Your task to perform on an android device: Is it going to rain tomorrow? Image 0: 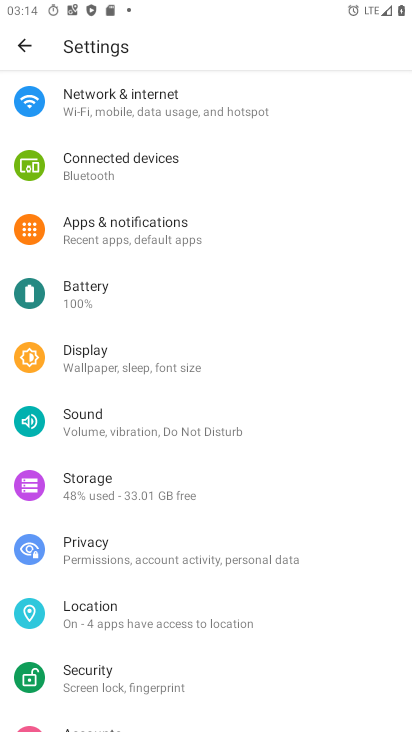
Step 0: press home button
Your task to perform on an android device: Is it going to rain tomorrow? Image 1: 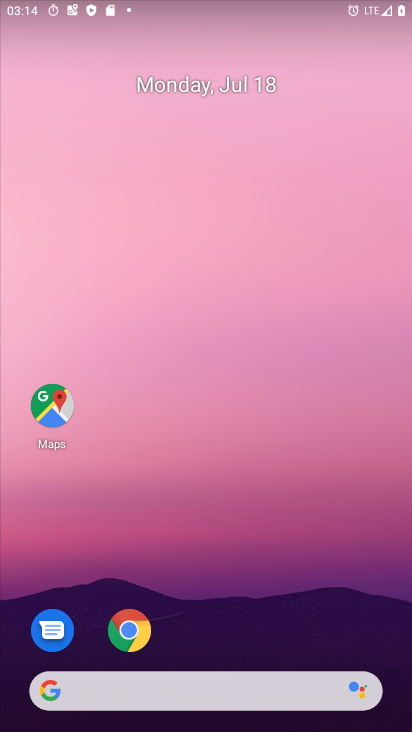
Step 1: click (155, 699)
Your task to perform on an android device: Is it going to rain tomorrow? Image 2: 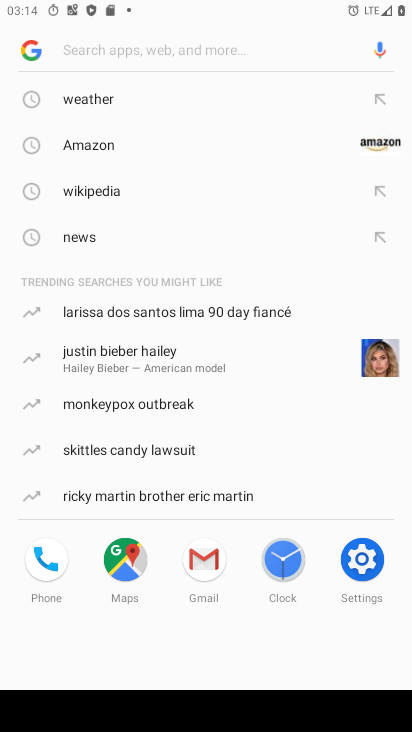
Step 2: click (134, 93)
Your task to perform on an android device: Is it going to rain tomorrow? Image 3: 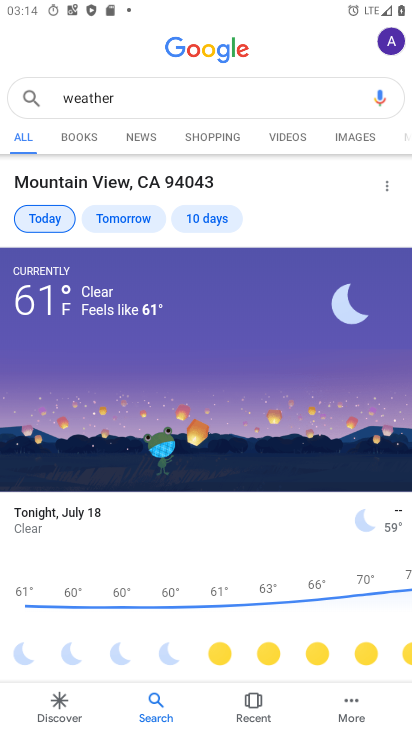
Step 3: click (124, 207)
Your task to perform on an android device: Is it going to rain tomorrow? Image 4: 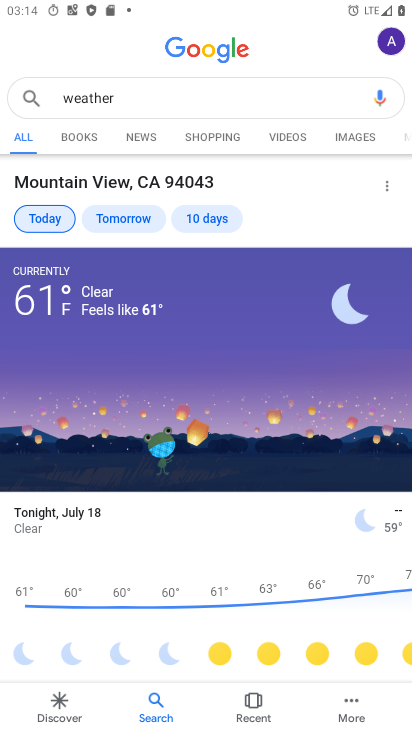
Step 4: click (130, 218)
Your task to perform on an android device: Is it going to rain tomorrow? Image 5: 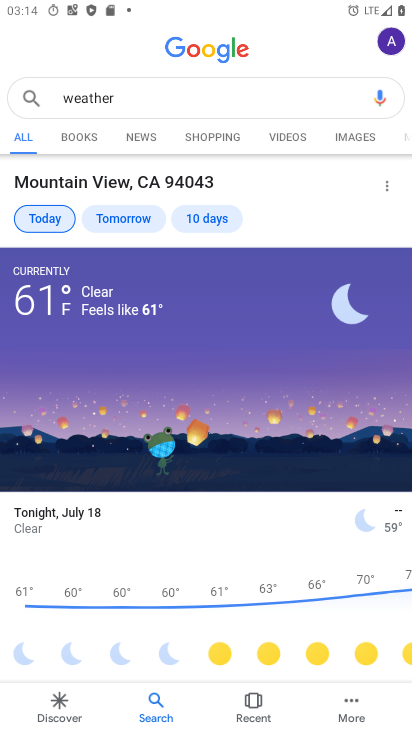
Step 5: click (130, 218)
Your task to perform on an android device: Is it going to rain tomorrow? Image 6: 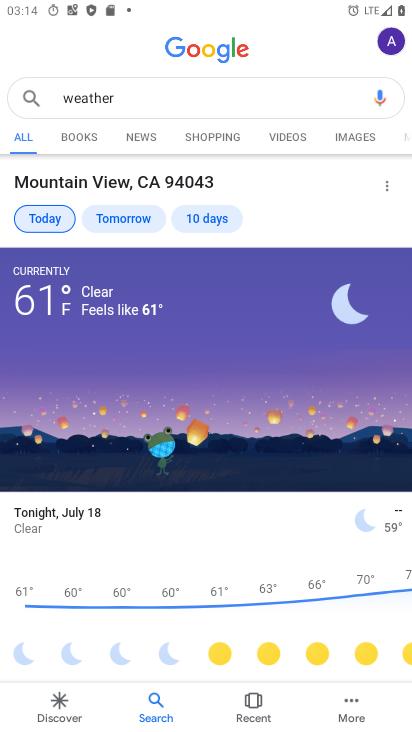
Step 6: click (110, 217)
Your task to perform on an android device: Is it going to rain tomorrow? Image 7: 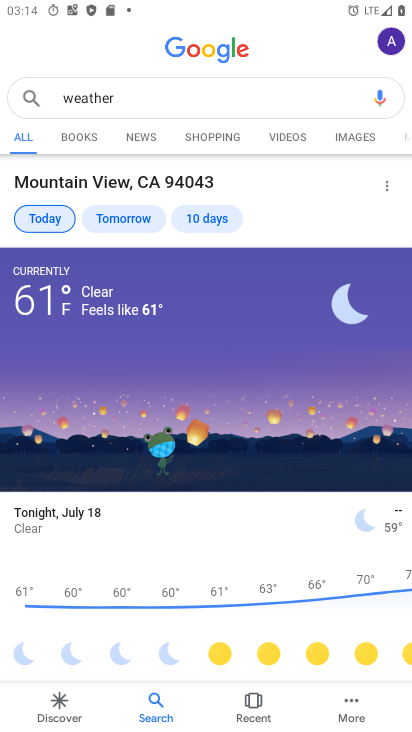
Step 7: click (110, 217)
Your task to perform on an android device: Is it going to rain tomorrow? Image 8: 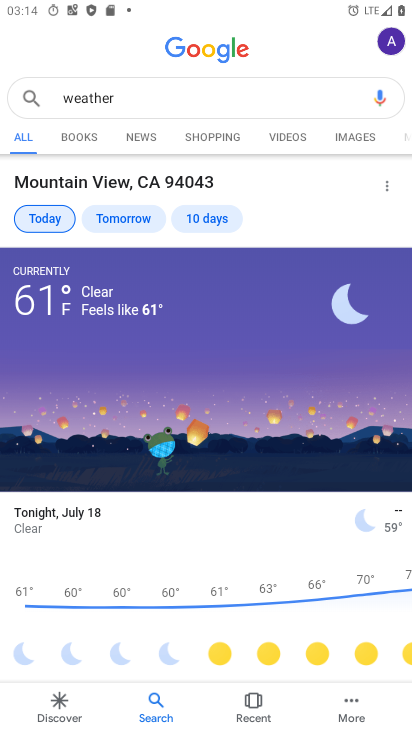
Step 8: click (110, 217)
Your task to perform on an android device: Is it going to rain tomorrow? Image 9: 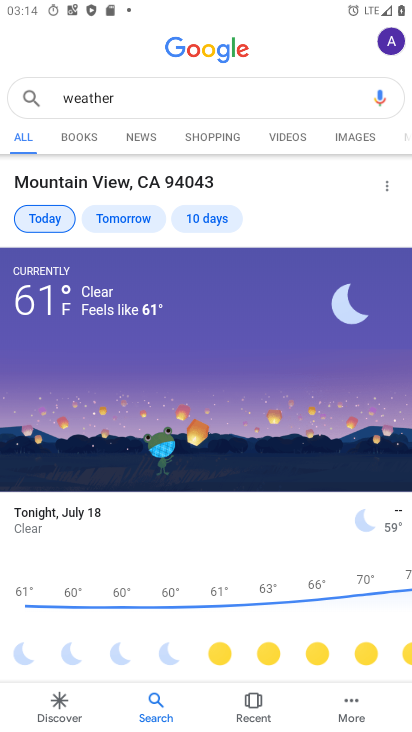
Step 9: click (110, 217)
Your task to perform on an android device: Is it going to rain tomorrow? Image 10: 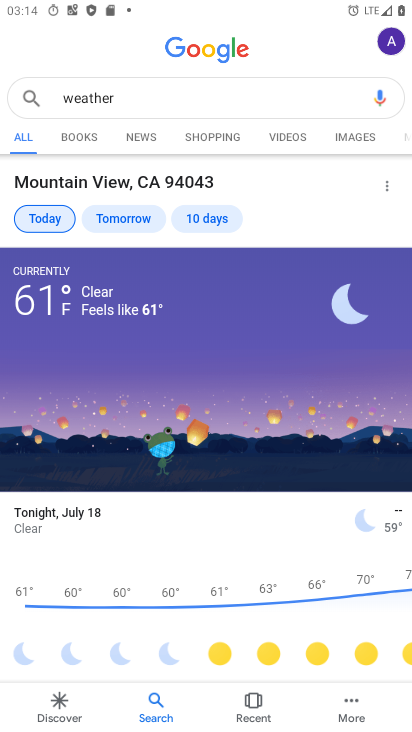
Step 10: click (124, 220)
Your task to perform on an android device: Is it going to rain tomorrow? Image 11: 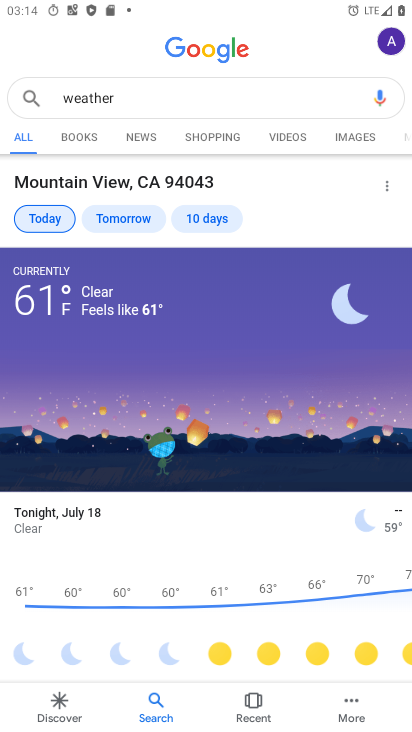
Step 11: click (124, 220)
Your task to perform on an android device: Is it going to rain tomorrow? Image 12: 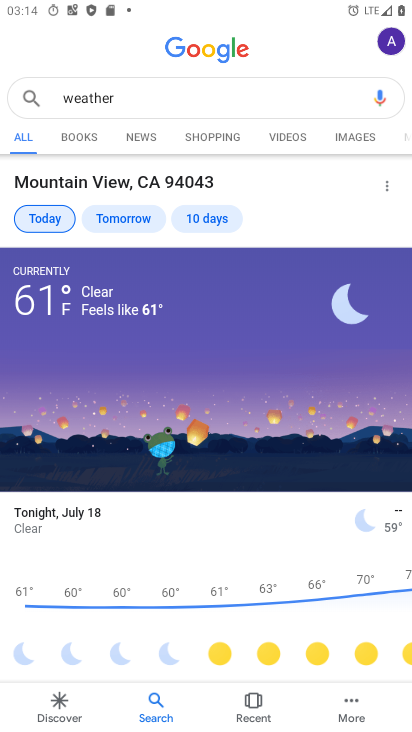
Step 12: click (124, 220)
Your task to perform on an android device: Is it going to rain tomorrow? Image 13: 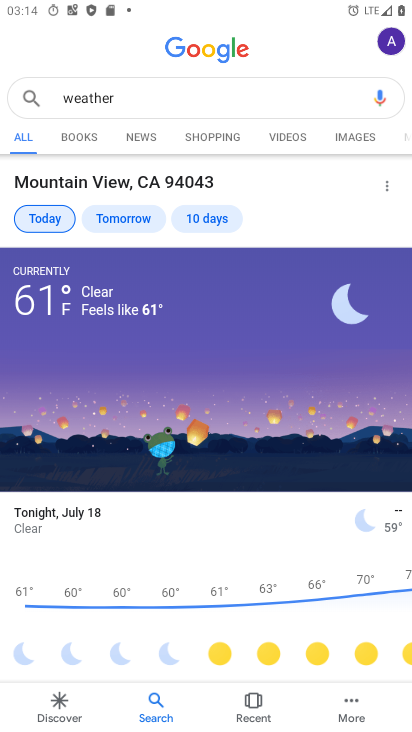
Step 13: click (124, 220)
Your task to perform on an android device: Is it going to rain tomorrow? Image 14: 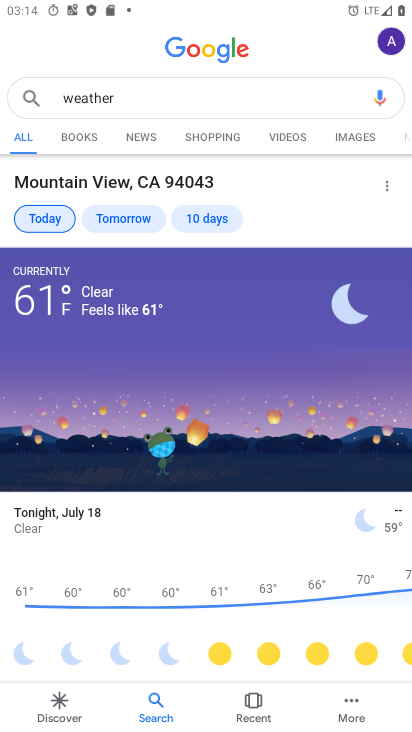
Step 14: click (124, 220)
Your task to perform on an android device: Is it going to rain tomorrow? Image 15: 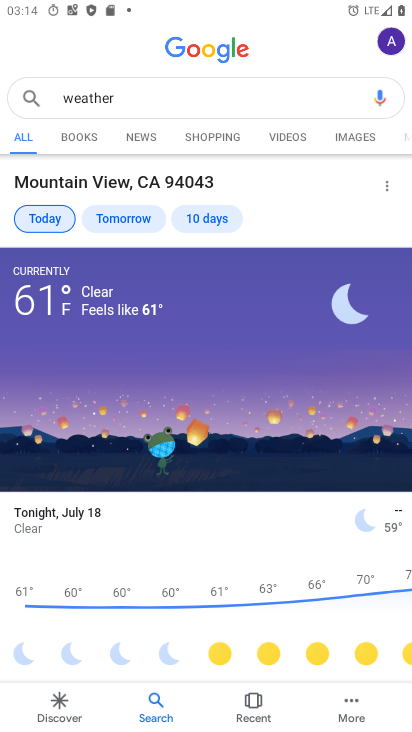
Step 15: click (124, 220)
Your task to perform on an android device: Is it going to rain tomorrow? Image 16: 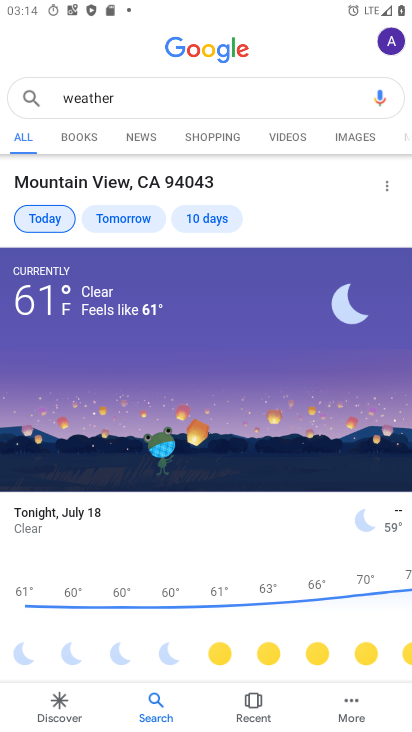
Step 16: click (124, 220)
Your task to perform on an android device: Is it going to rain tomorrow? Image 17: 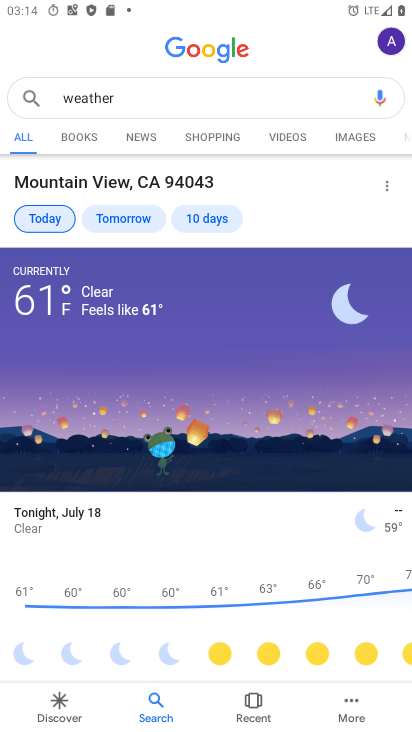
Step 17: click (124, 220)
Your task to perform on an android device: Is it going to rain tomorrow? Image 18: 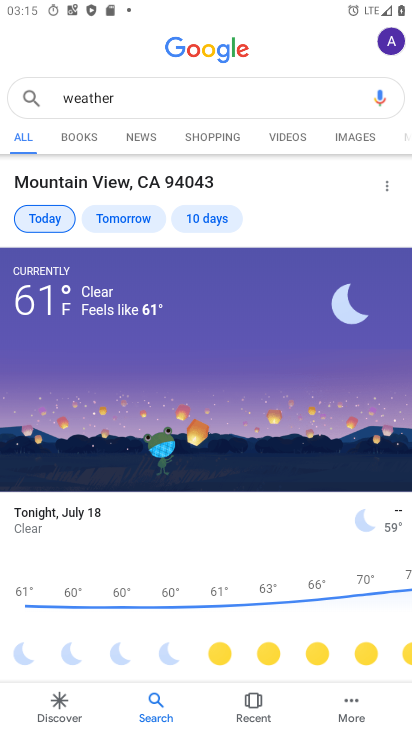
Step 18: click (124, 220)
Your task to perform on an android device: Is it going to rain tomorrow? Image 19: 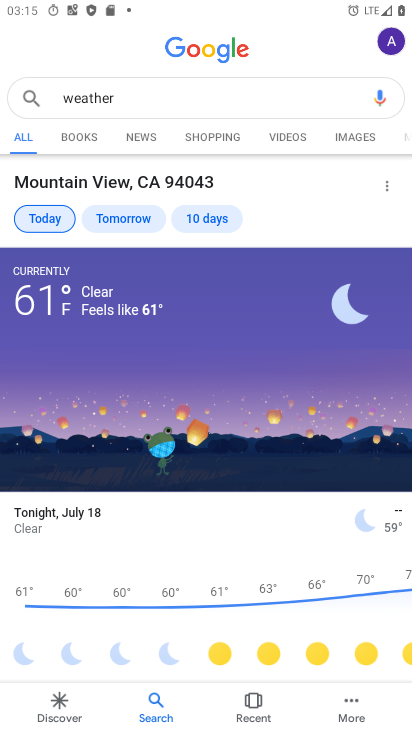
Step 19: click (124, 220)
Your task to perform on an android device: Is it going to rain tomorrow? Image 20: 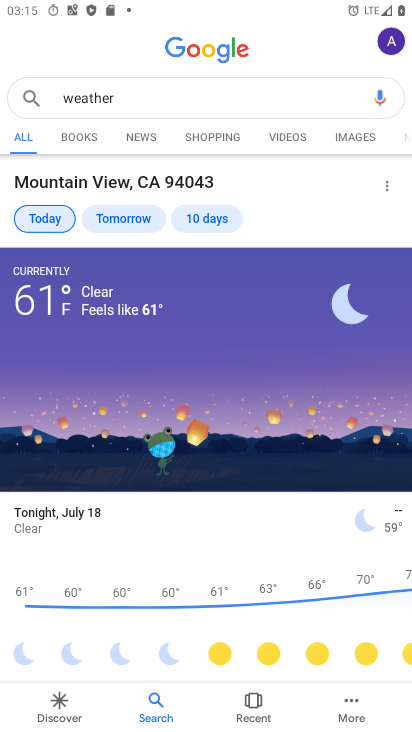
Step 20: click (124, 220)
Your task to perform on an android device: Is it going to rain tomorrow? Image 21: 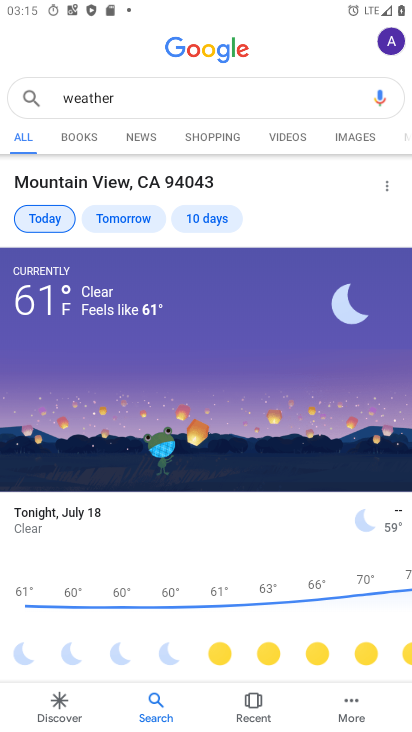
Step 21: click (124, 220)
Your task to perform on an android device: Is it going to rain tomorrow? Image 22: 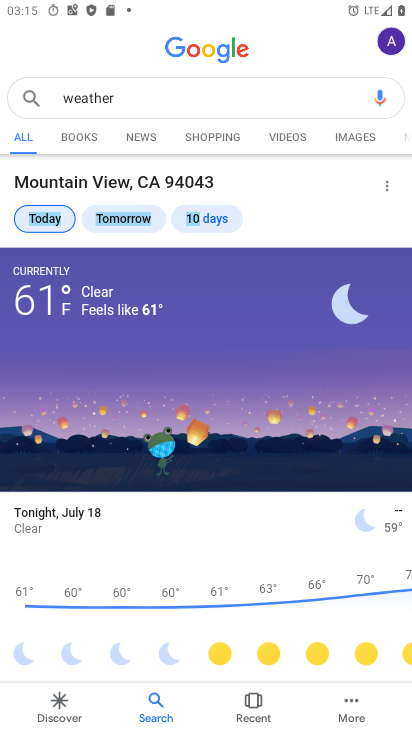
Step 22: click (124, 220)
Your task to perform on an android device: Is it going to rain tomorrow? Image 23: 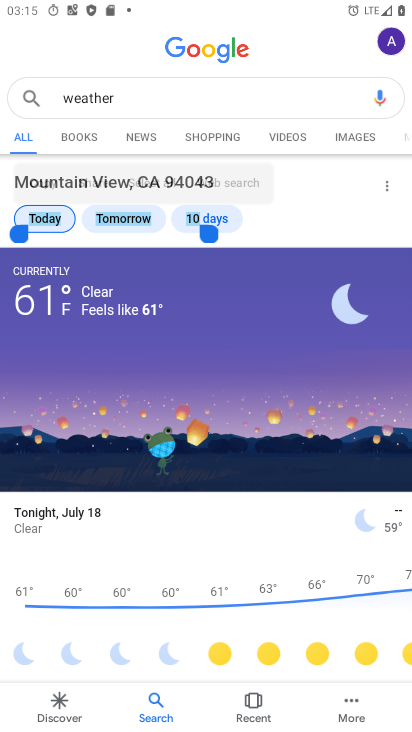
Step 23: click (124, 220)
Your task to perform on an android device: Is it going to rain tomorrow? Image 24: 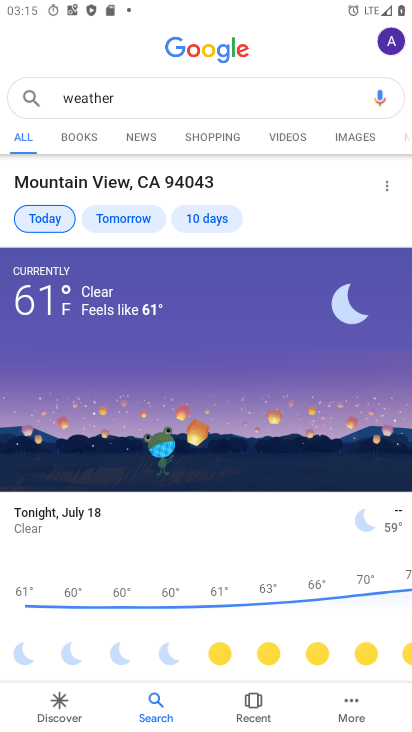
Step 24: click (124, 220)
Your task to perform on an android device: Is it going to rain tomorrow? Image 25: 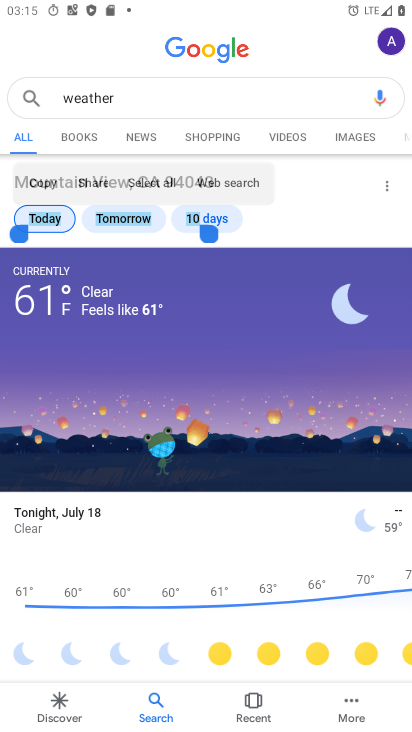
Step 25: click (124, 220)
Your task to perform on an android device: Is it going to rain tomorrow? Image 26: 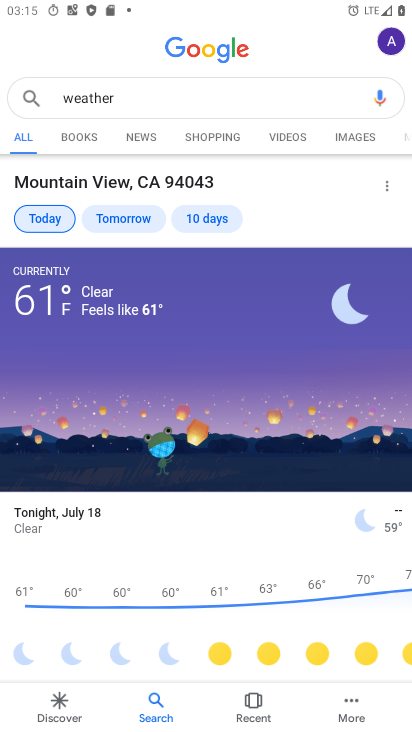
Step 26: click (124, 220)
Your task to perform on an android device: Is it going to rain tomorrow? Image 27: 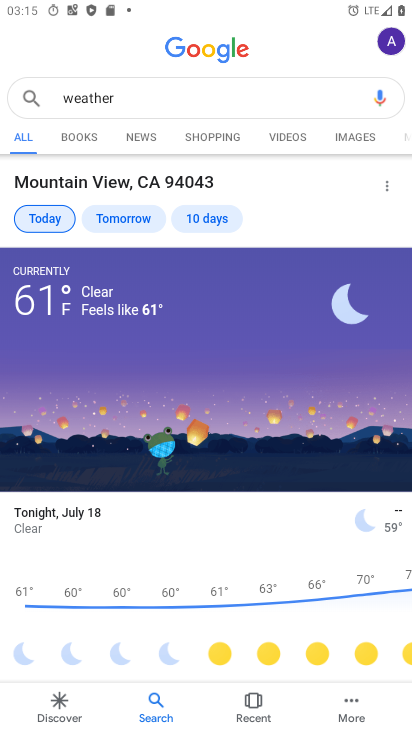
Step 27: click (101, 234)
Your task to perform on an android device: Is it going to rain tomorrow? Image 28: 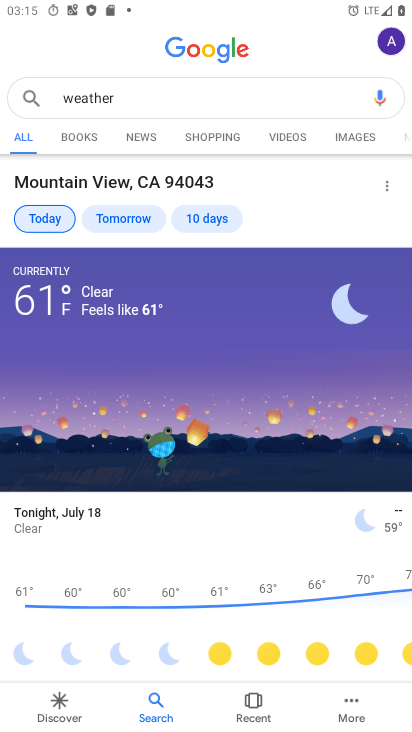
Step 28: click (101, 234)
Your task to perform on an android device: Is it going to rain tomorrow? Image 29: 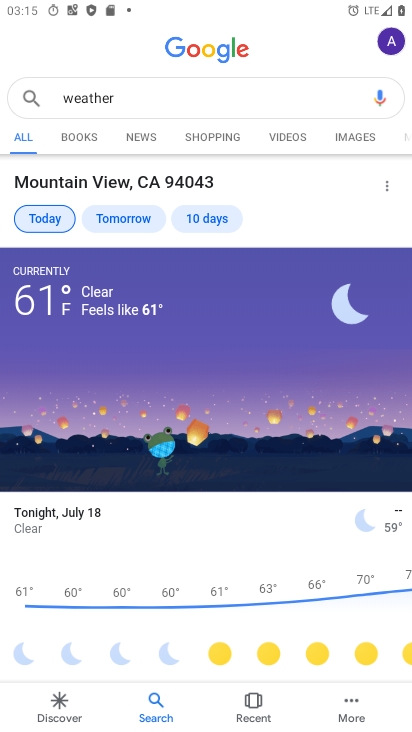
Step 29: click (101, 234)
Your task to perform on an android device: Is it going to rain tomorrow? Image 30: 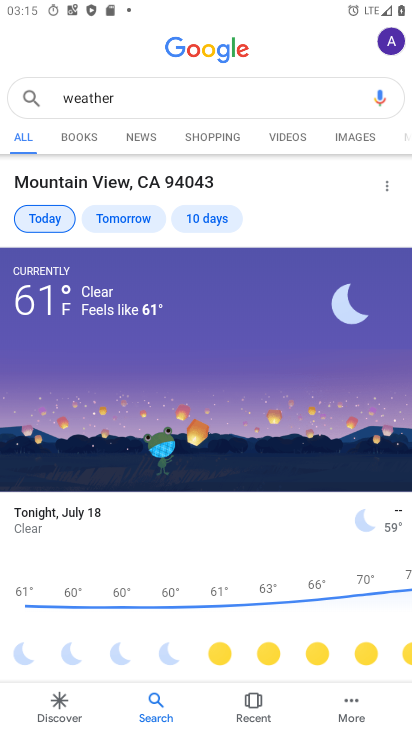
Step 30: click (101, 234)
Your task to perform on an android device: Is it going to rain tomorrow? Image 31: 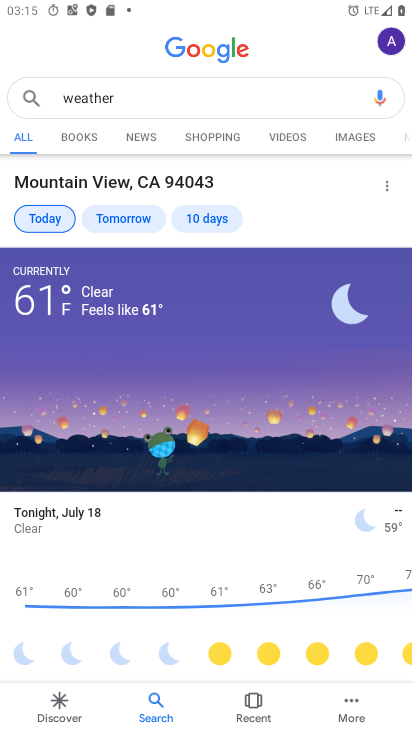
Step 31: click (101, 234)
Your task to perform on an android device: Is it going to rain tomorrow? Image 32: 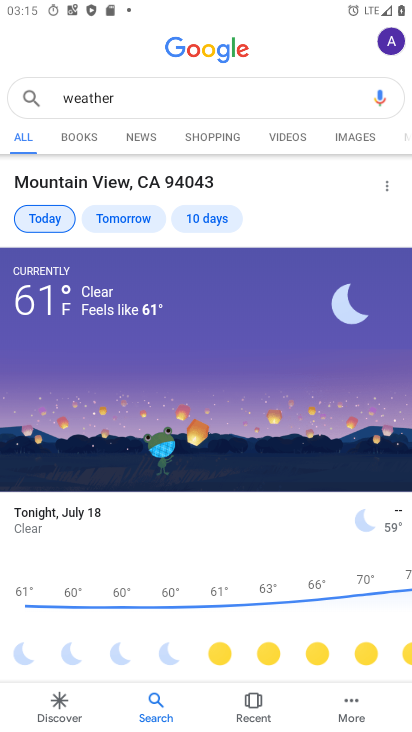
Step 32: click (101, 234)
Your task to perform on an android device: Is it going to rain tomorrow? Image 33: 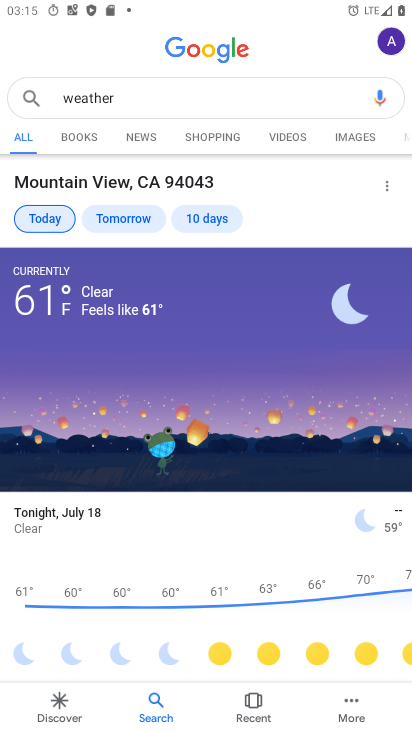
Step 33: click (101, 234)
Your task to perform on an android device: Is it going to rain tomorrow? Image 34: 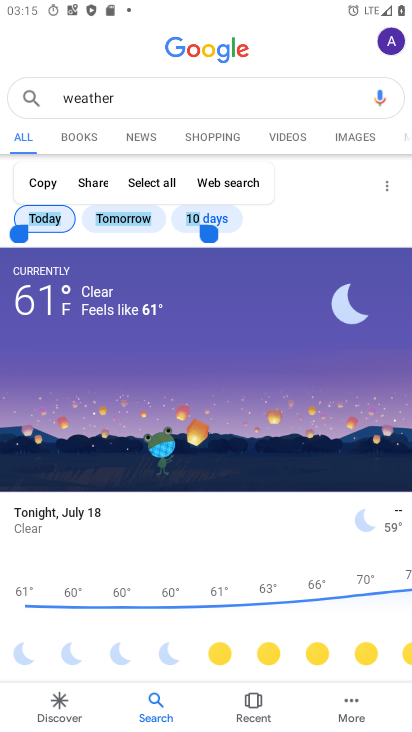
Step 34: click (118, 227)
Your task to perform on an android device: Is it going to rain tomorrow? Image 35: 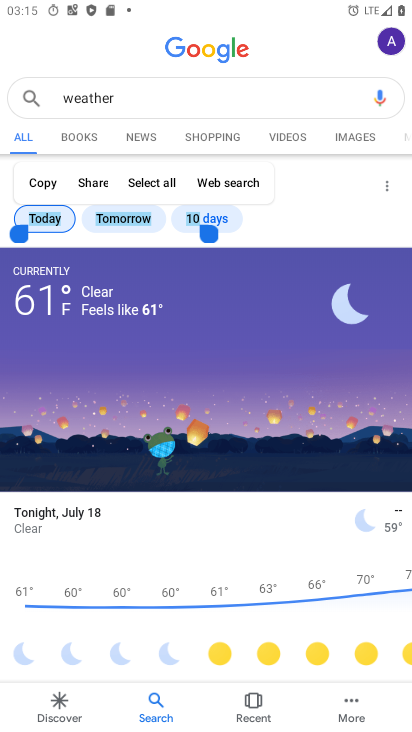
Step 35: click (118, 227)
Your task to perform on an android device: Is it going to rain tomorrow? Image 36: 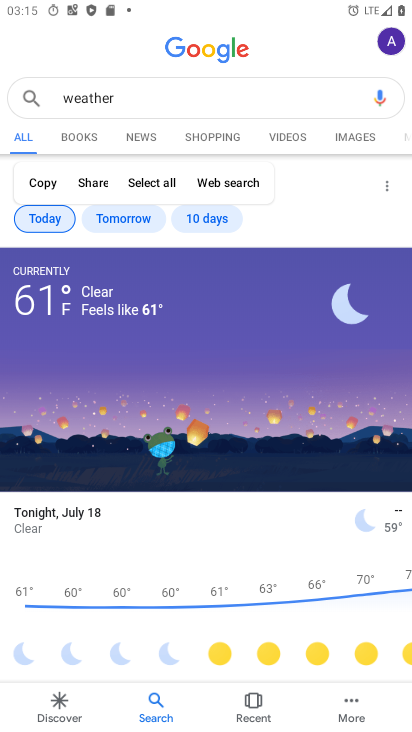
Step 36: click (118, 227)
Your task to perform on an android device: Is it going to rain tomorrow? Image 37: 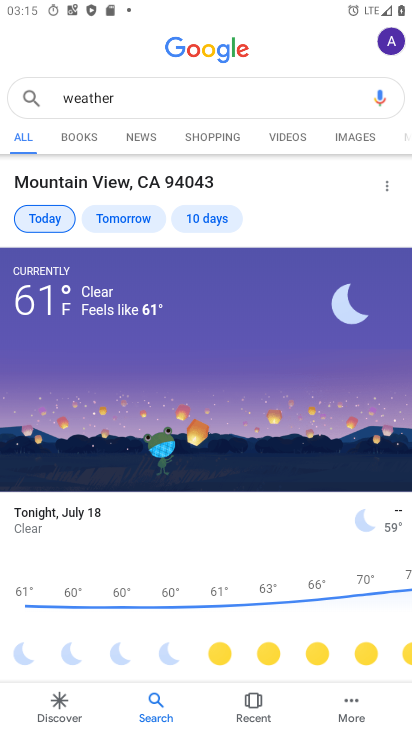
Step 37: click (120, 221)
Your task to perform on an android device: Is it going to rain tomorrow? Image 38: 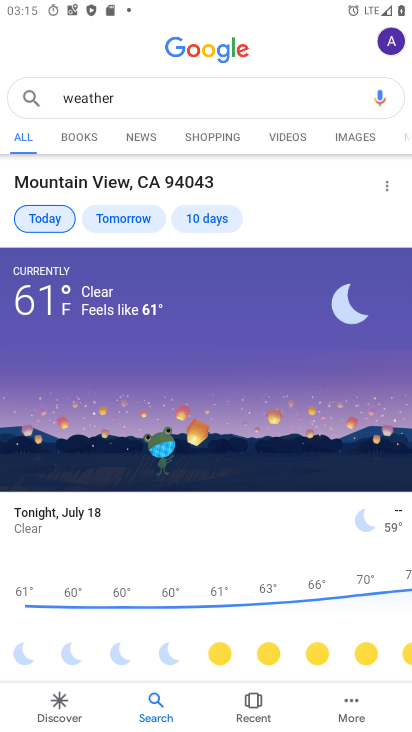
Step 38: click (120, 221)
Your task to perform on an android device: Is it going to rain tomorrow? Image 39: 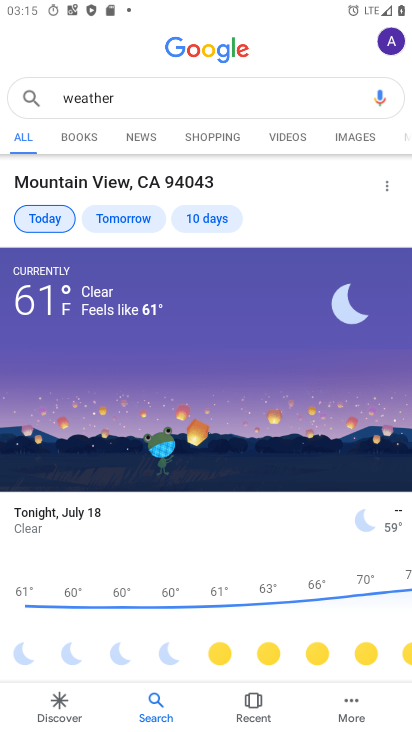
Step 39: click (120, 221)
Your task to perform on an android device: Is it going to rain tomorrow? Image 40: 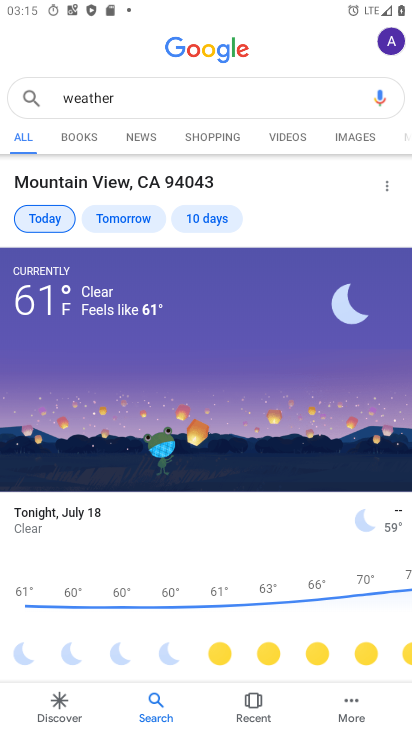
Step 40: click (120, 221)
Your task to perform on an android device: Is it going to rain tomorrow? Image 41: 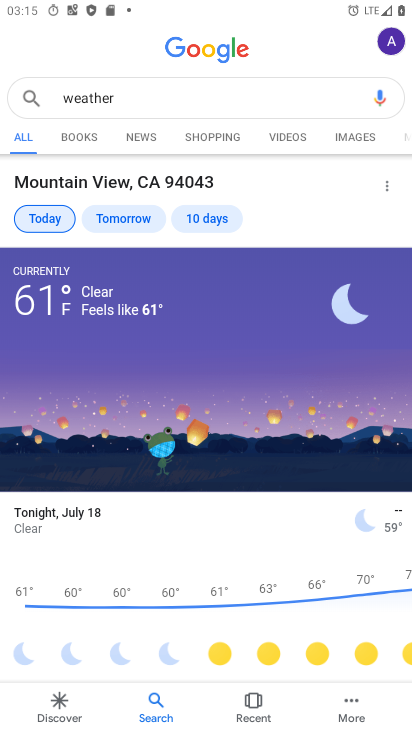
Step 41: click (120, 221)
Your task to perform on an android device: Is it going to rain tomorrow? Image 42: 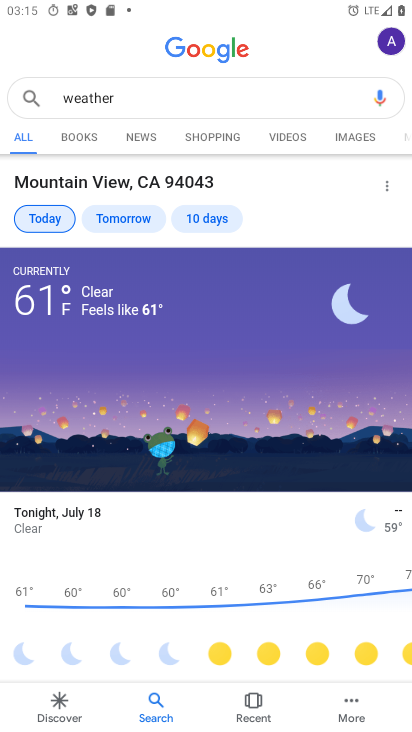
Step 42: click (120, 221)
Your task to perform on an android device: Is it going to rain tomorrow? Image 43: 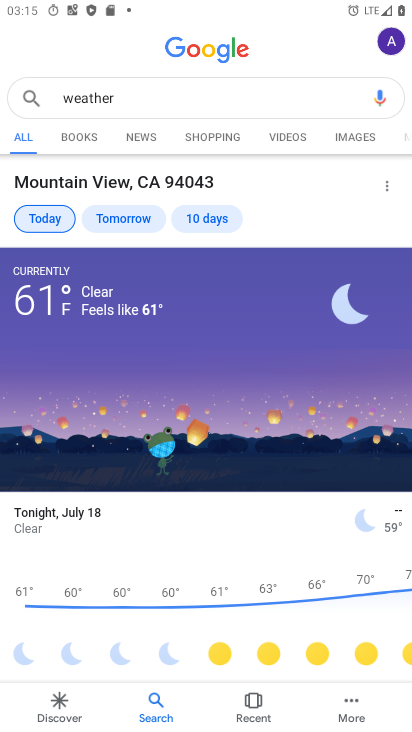
Step 43: task complete